Your task to perform on an android device: Show me the top rated dinnerware on Crate & Barrel Image 0: 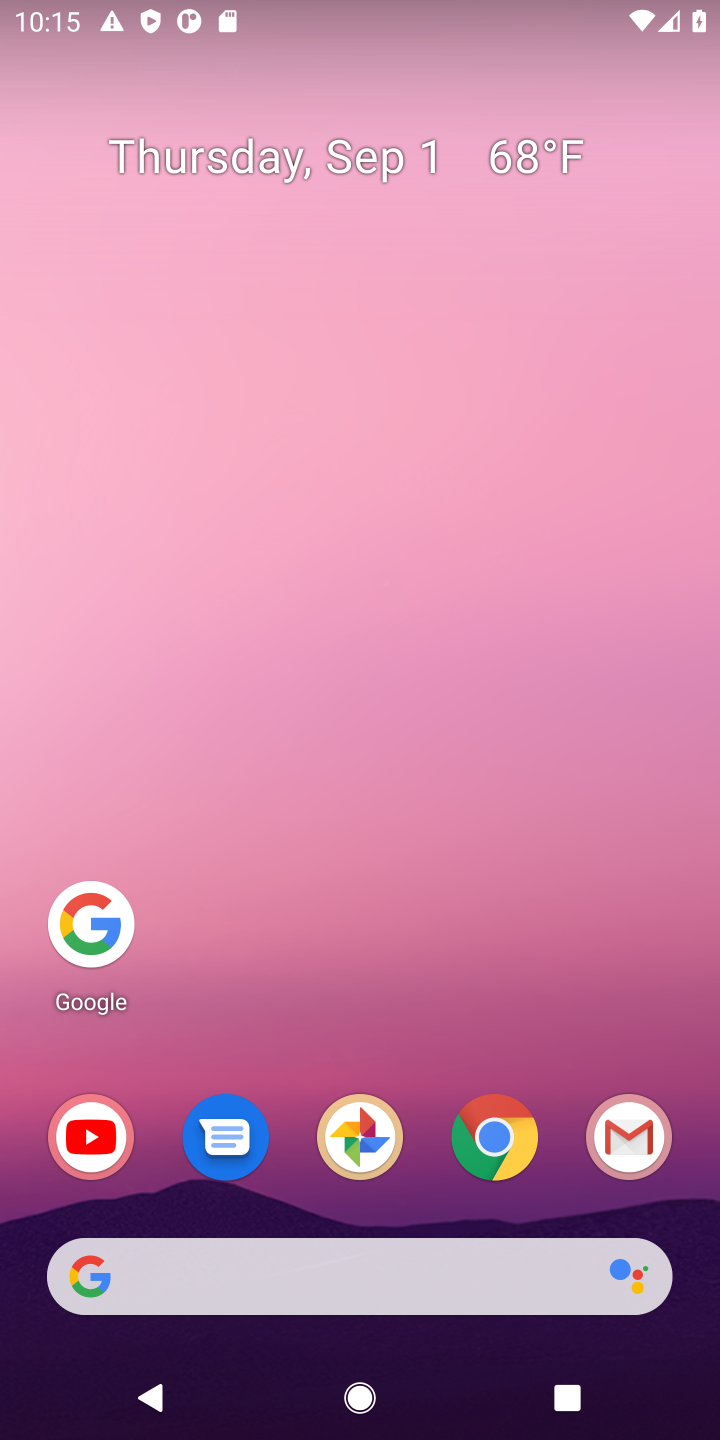
Step 0: click (264, 1273)
Your task to perform on an android device: Show me the top rated dinnerware on Crate & Barrel Image 1: 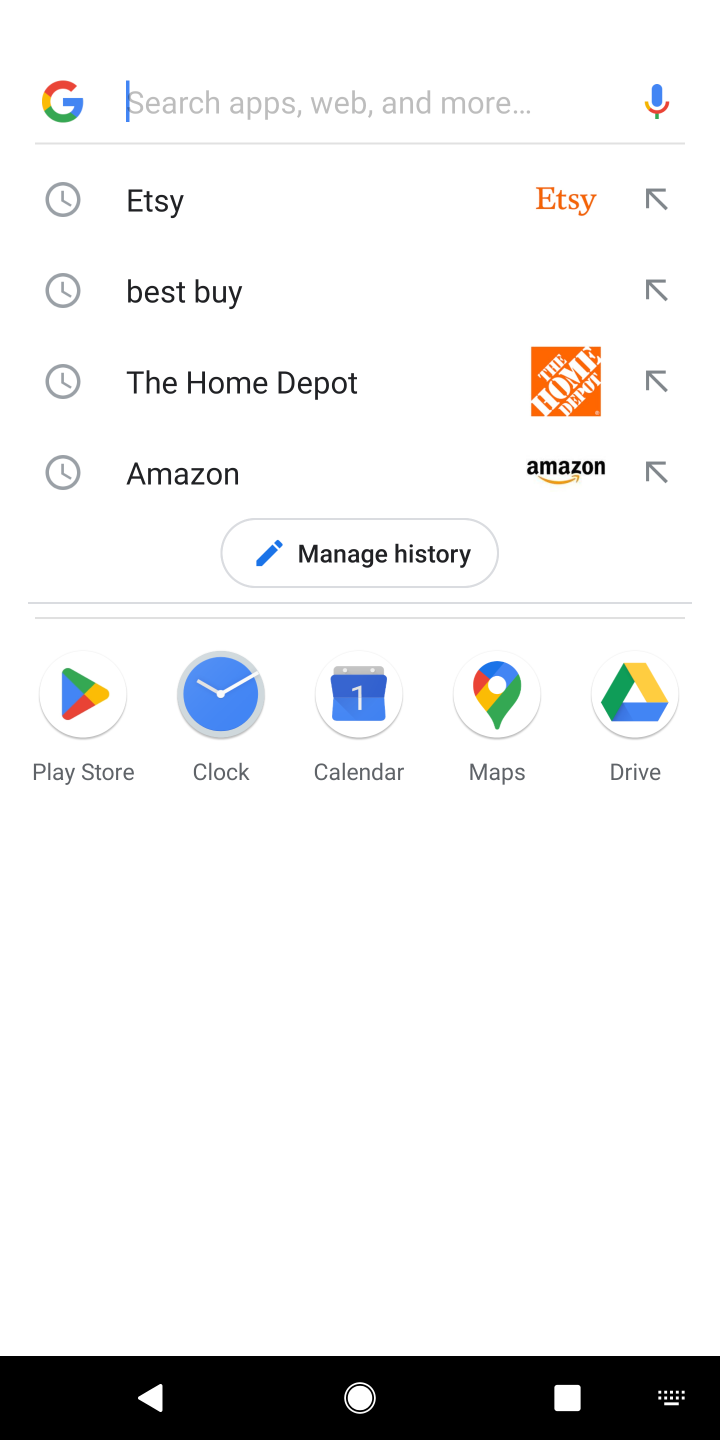
Step 1: type "crate"
Your task to perform on an android device: Show me the top rated dinnerware on Crate & Barrel Image 2: 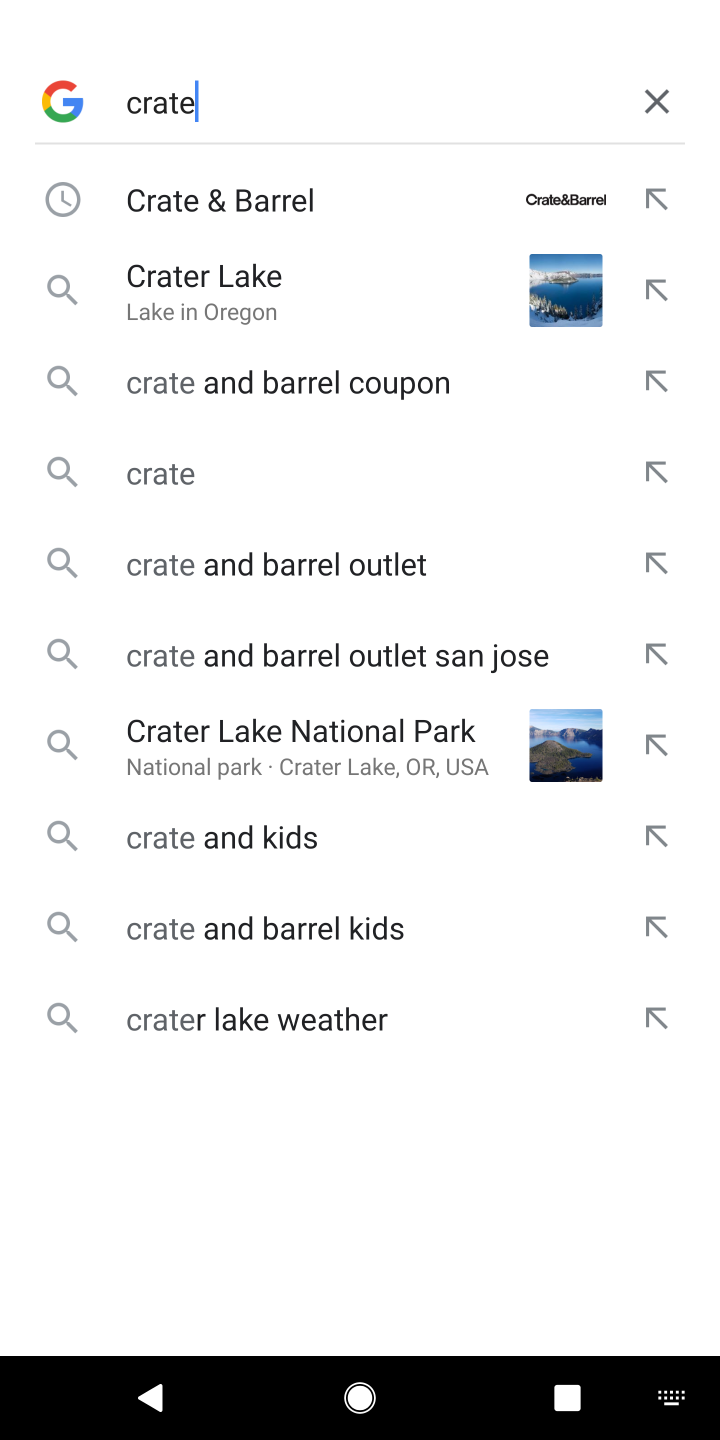
Step 2: click (240, 192)
Your task to perform on an android device: Show me the top rated dinnerware on Crate & Barrel Image 3: 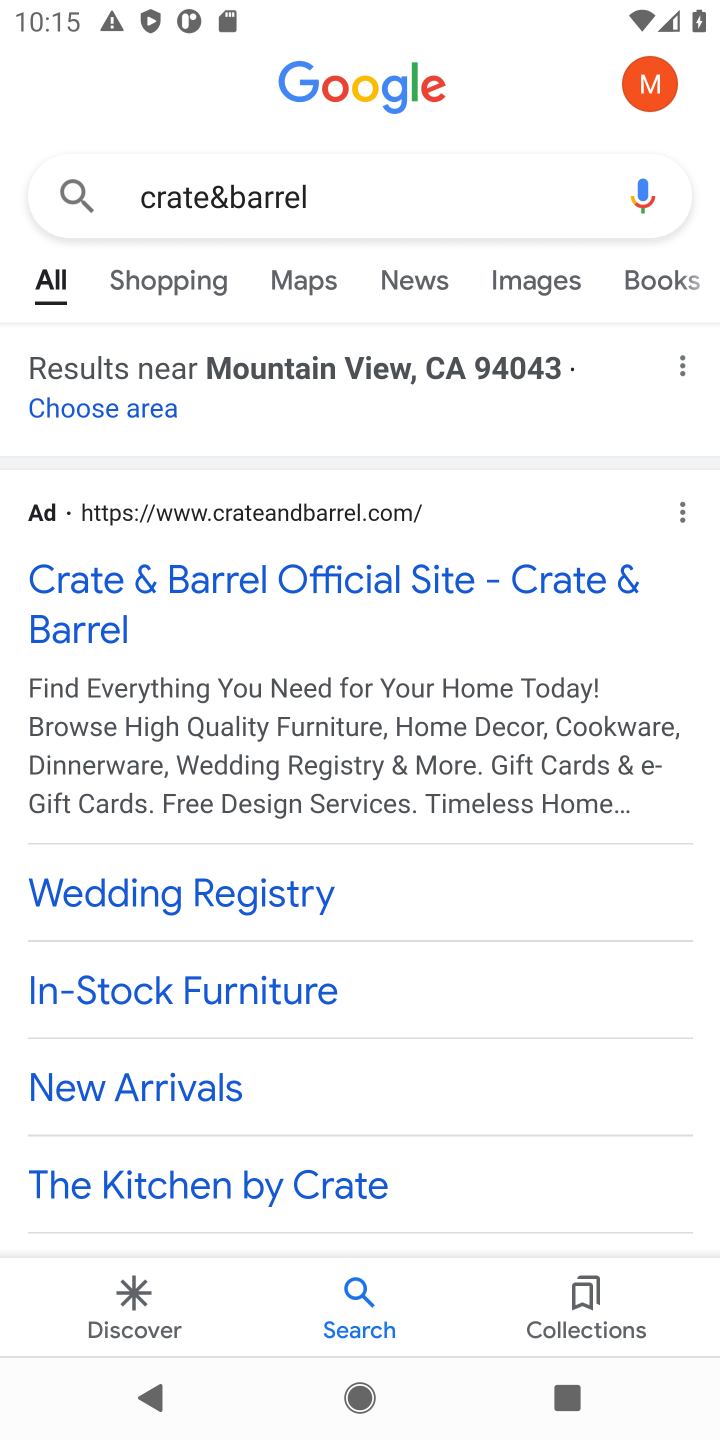
Step 3: click (175, 573)
Your task to perform on an android device: Show me the top rated dinnerware on Crate & Barrel Image 4: 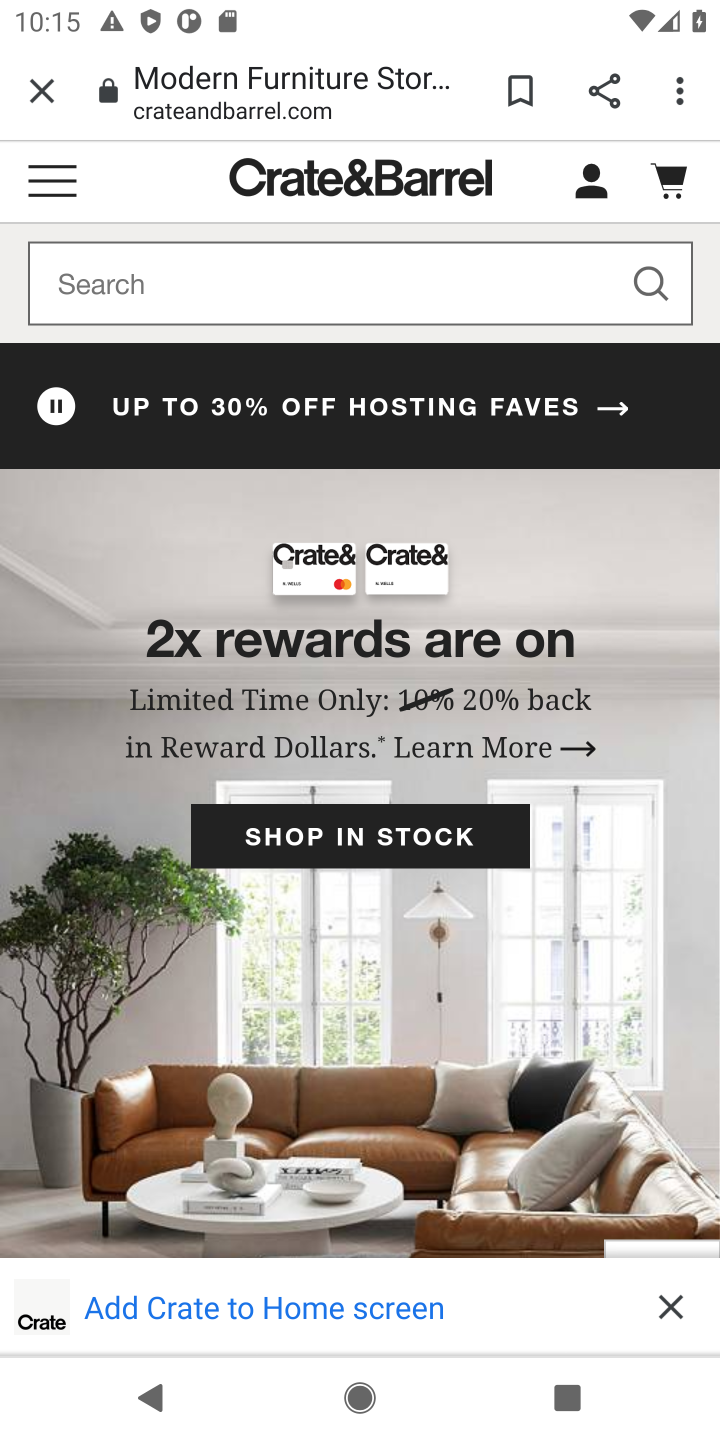
Step 4: click (278, 272)
Your task to perform on an android device: Show me the top rated dinnerware on Crate & Barrel Image 5: 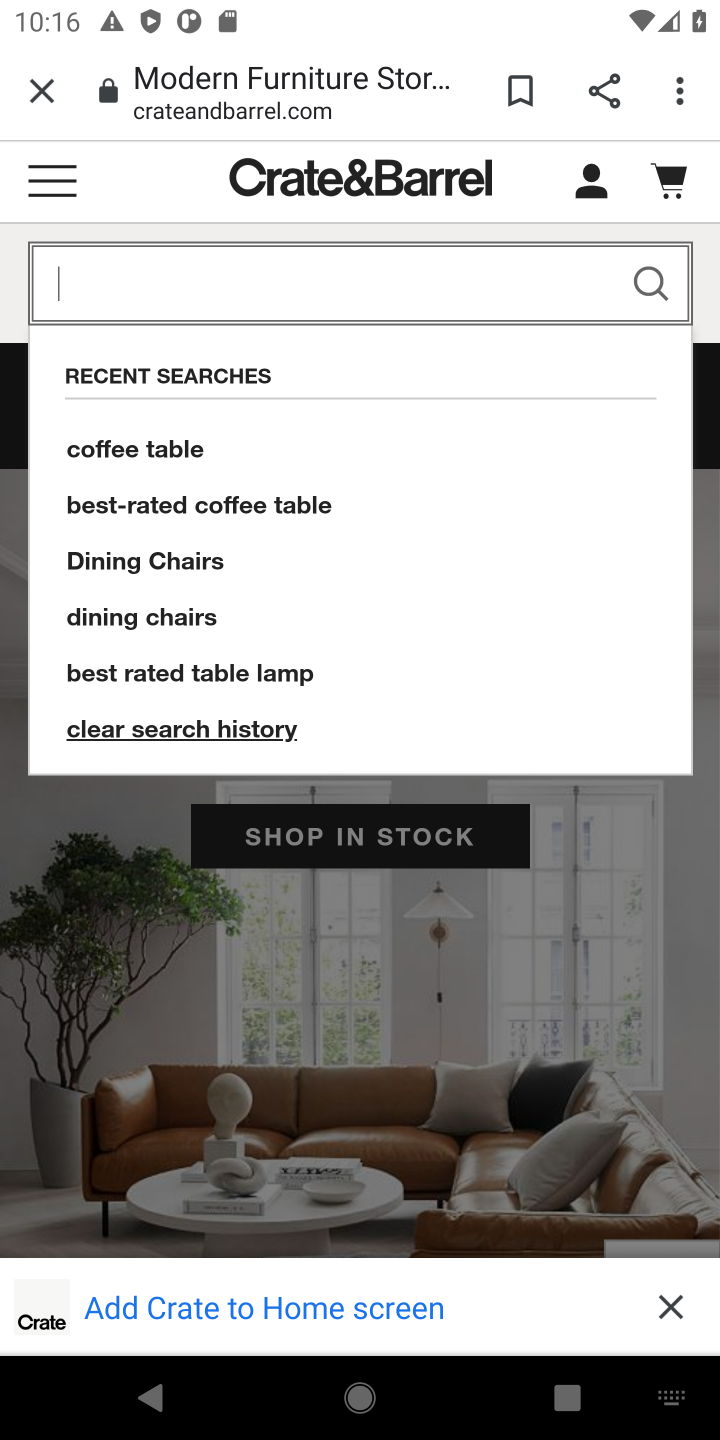
Step 5: type "top rated dinnerware"
Your task to perform on an android device: Show me the top rated dinnerware on Crate & Barrel Image 6: 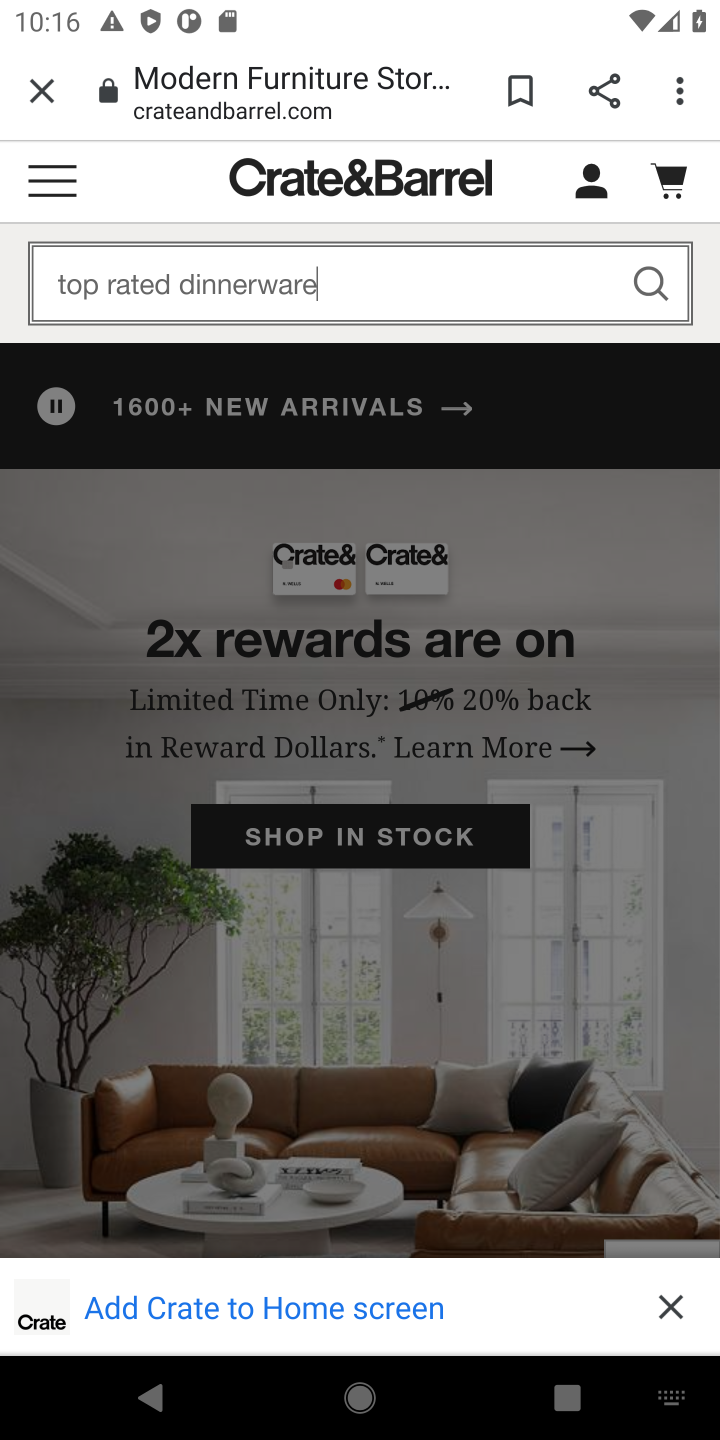
Step 6: click (652, 280)
Your task to perform on an android device: Show me the top rated dinnerware on Crate & Barrel Image 7: 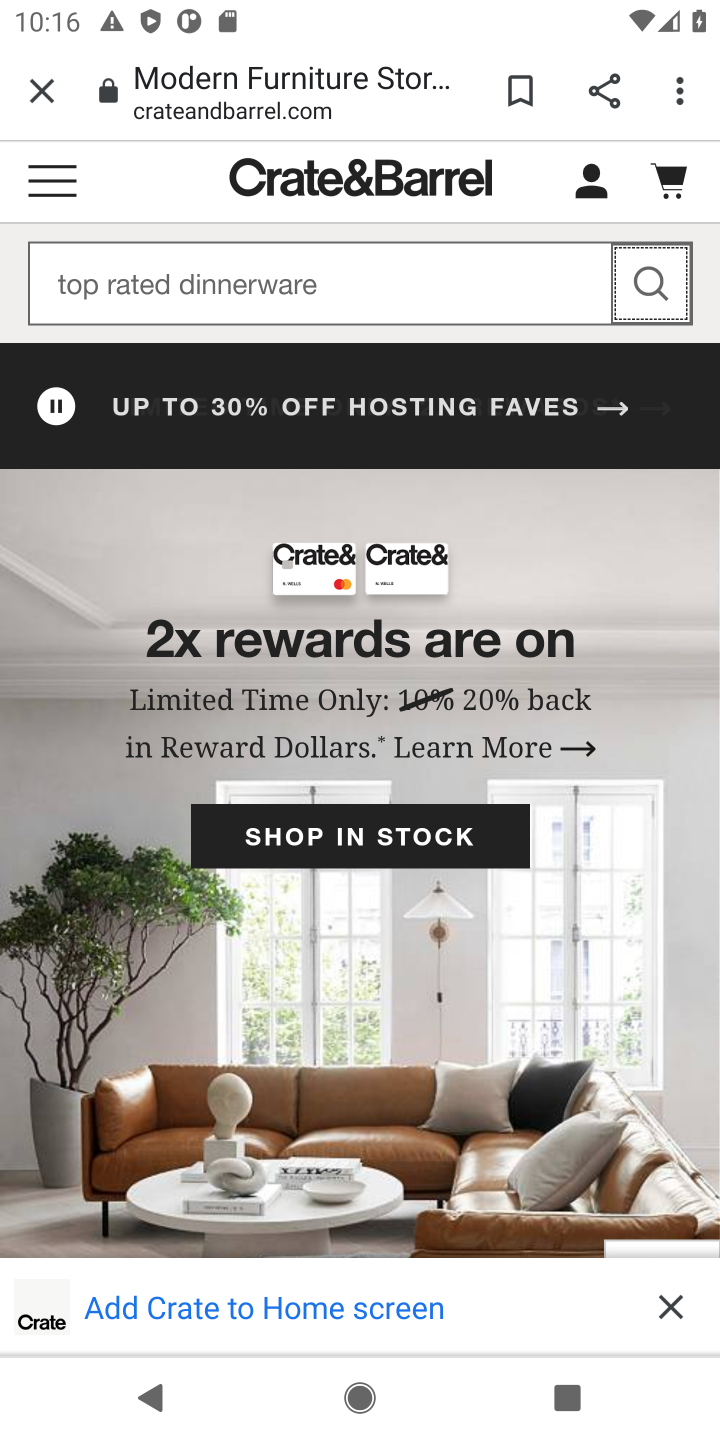
Step 7: click (650, 283)
Your task to perform on an android device: Show me the top rated dinnerware on Crate & Barrel Image 8: 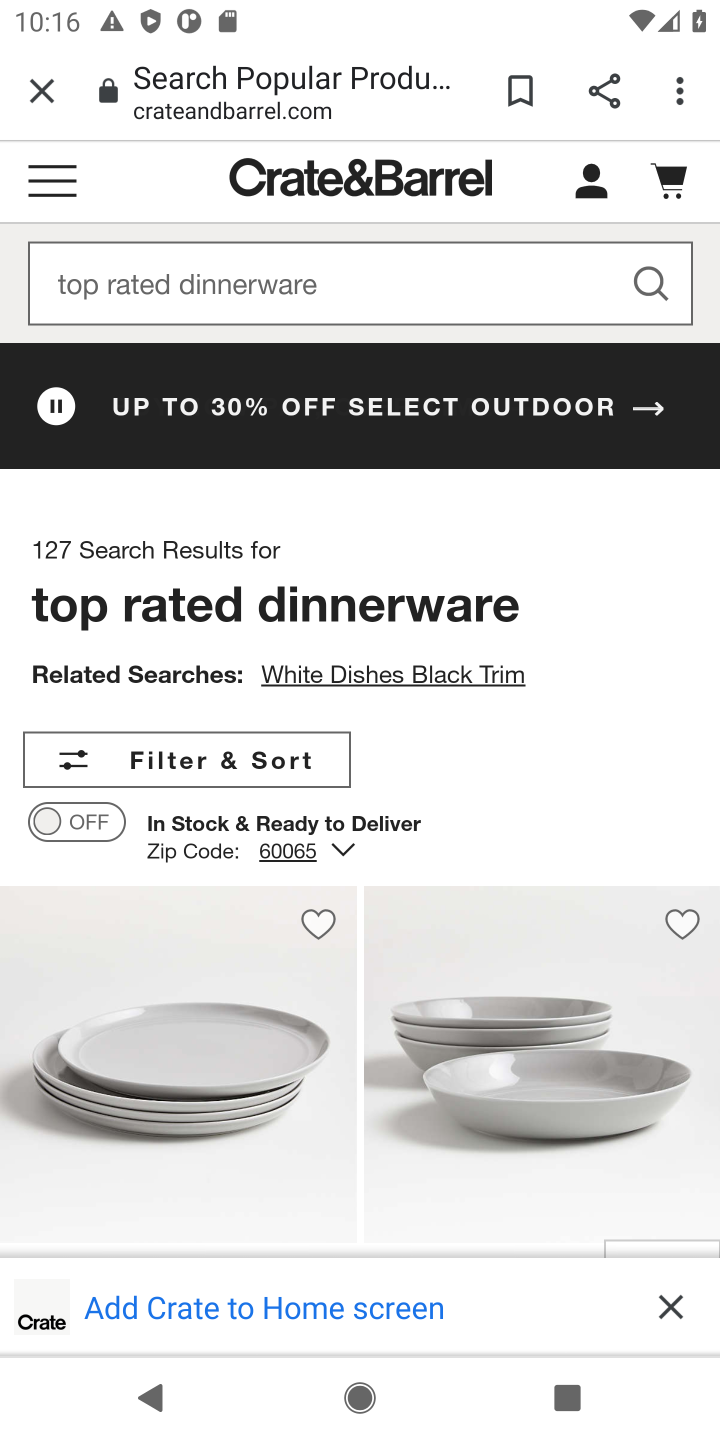
Step 8: task complete